Your task to perform on an android device: Empty the shopping cart on walmart. Add "macbook pro 13 inch" to the cart on walmart, then select checkout. Image 0: 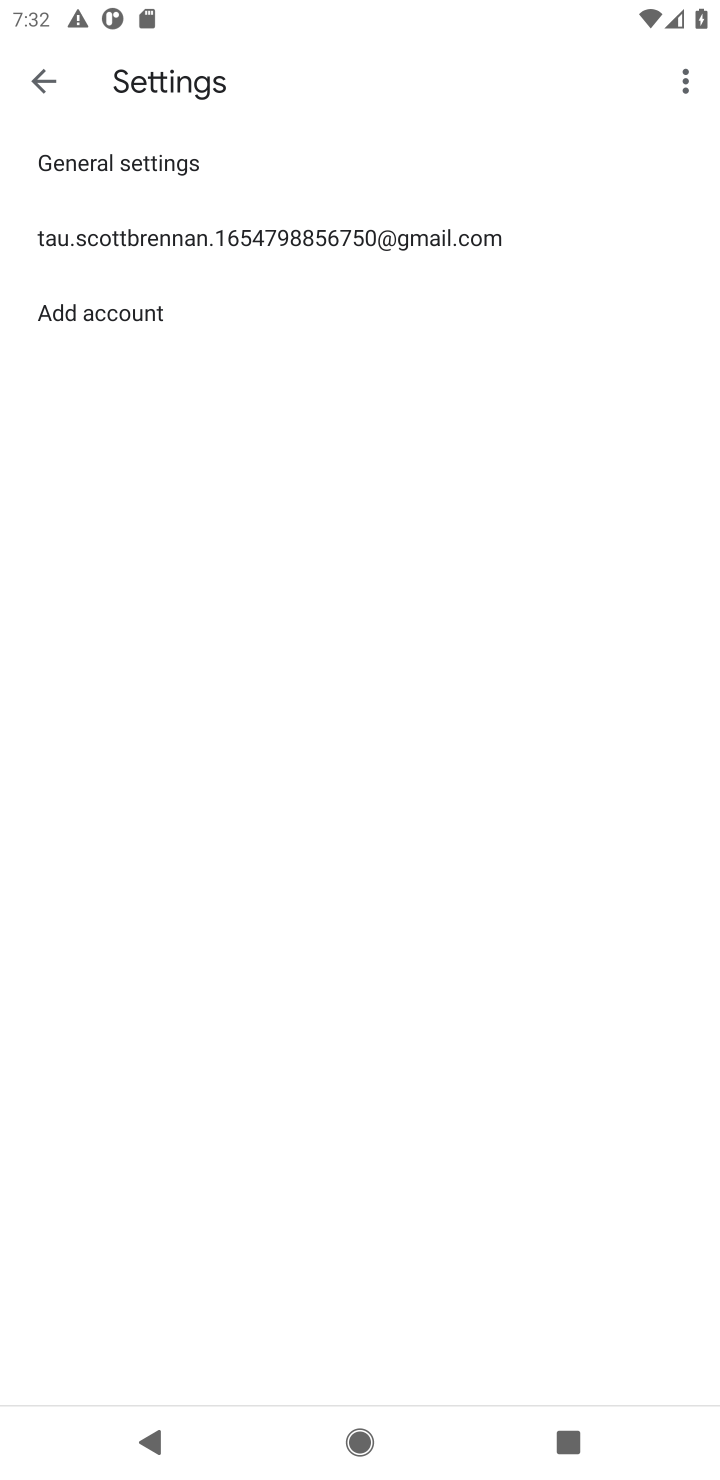
Step 0: press home button
Your task to perform on an android device: Empty the shopping cart on walmart. Add "macbook pro 13 inch" to the cart on walmart, then select checkout. Image 1: 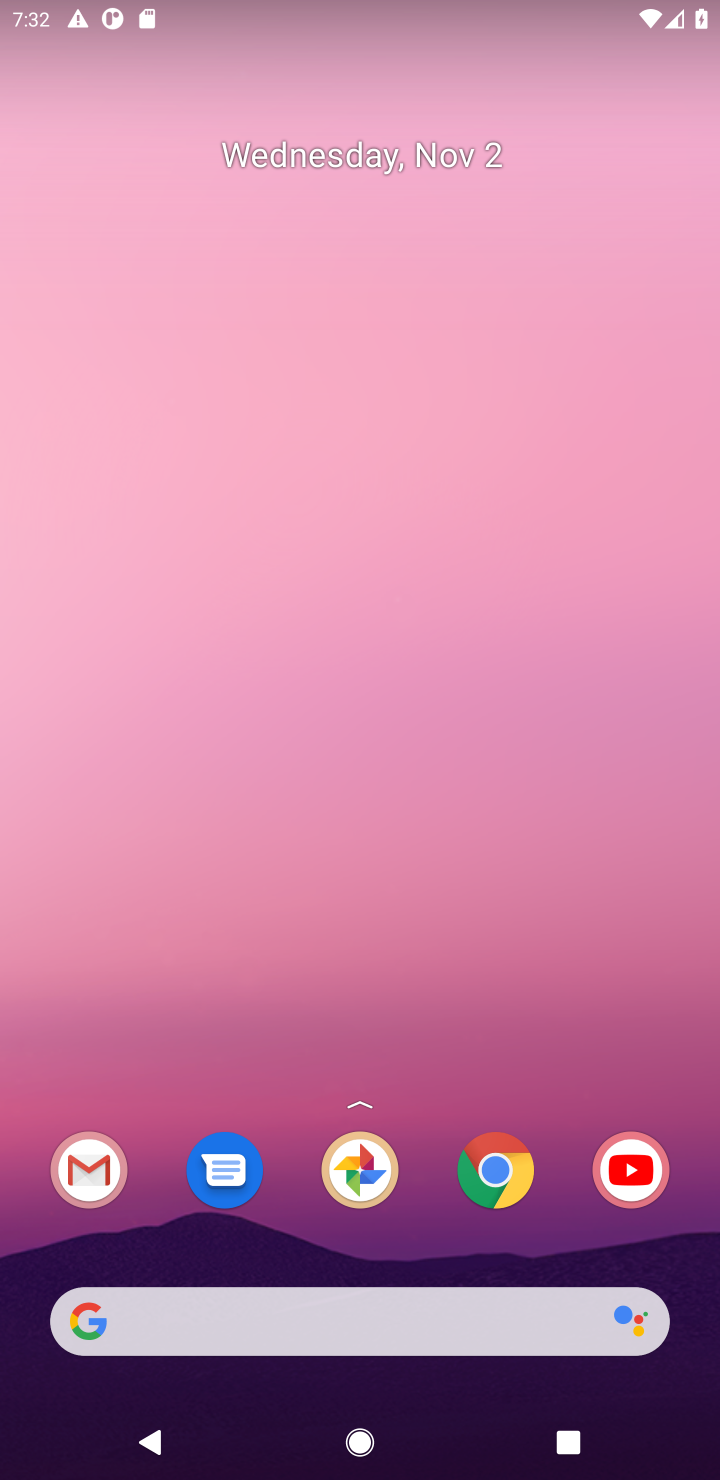
Step 1: click (505, 1193)
Your task to perform on an android device: Empty the shopping cart on walmart. Add "macbook pro 13 inch" to the cart on walmart, then select checkout. Image 2: 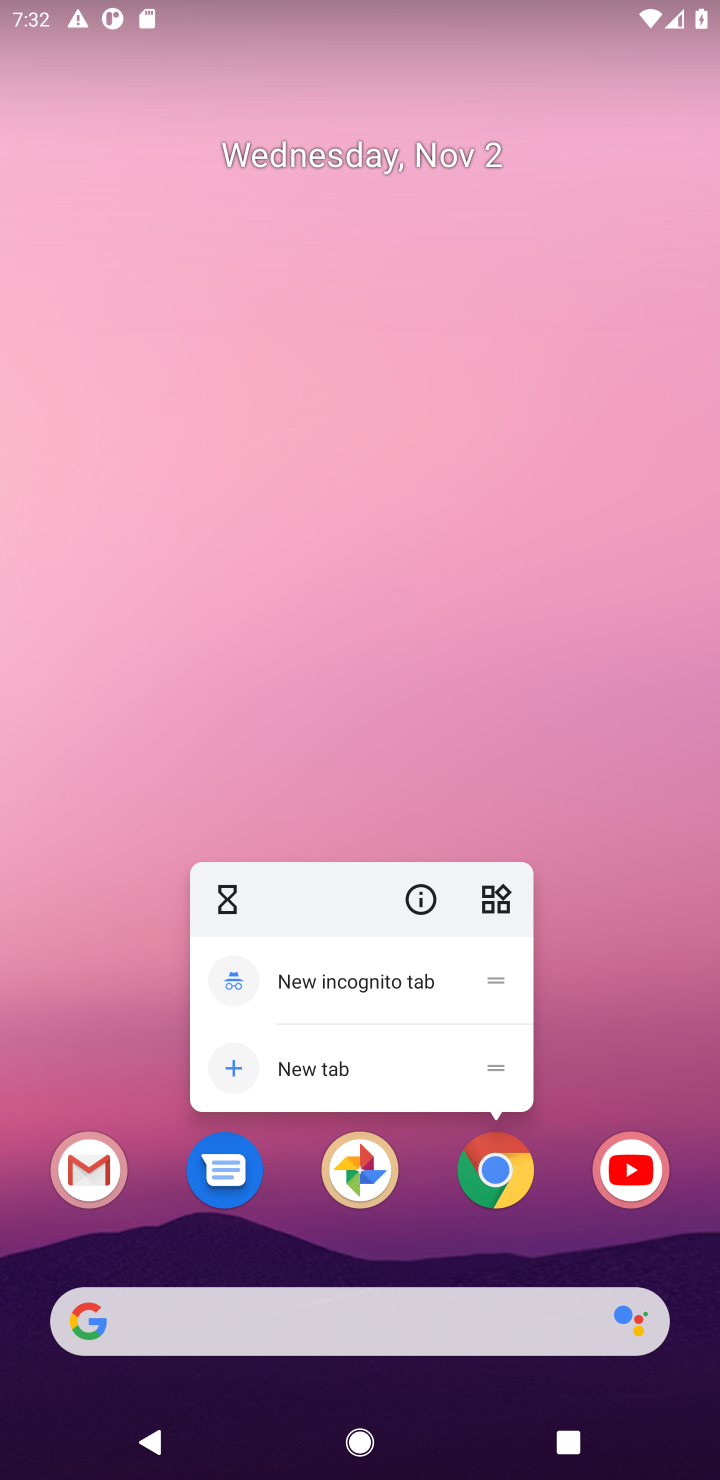
Step 2: click (521, 1181)
Your task to perform on an android device: Empty the shopping cart on walmart. Add "macbook pro 13 inch" to the cart on walmart, then select checkout. Image 3: 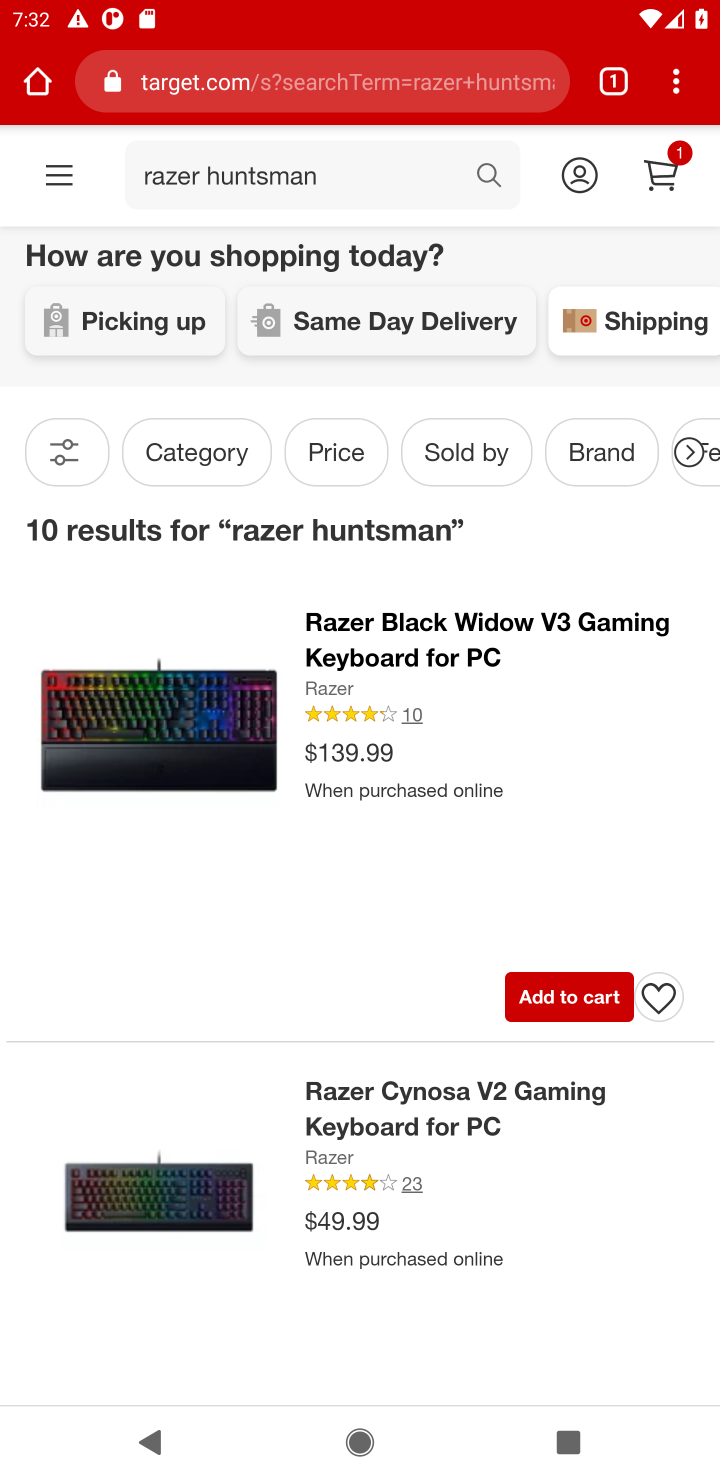
Step 3: click (317, 124)
Your task to perform on an android device: Empty the shopping cart on walmart. Add "macbook pro 13 inch" to the cart on walmart, then select checkout. Image 4: 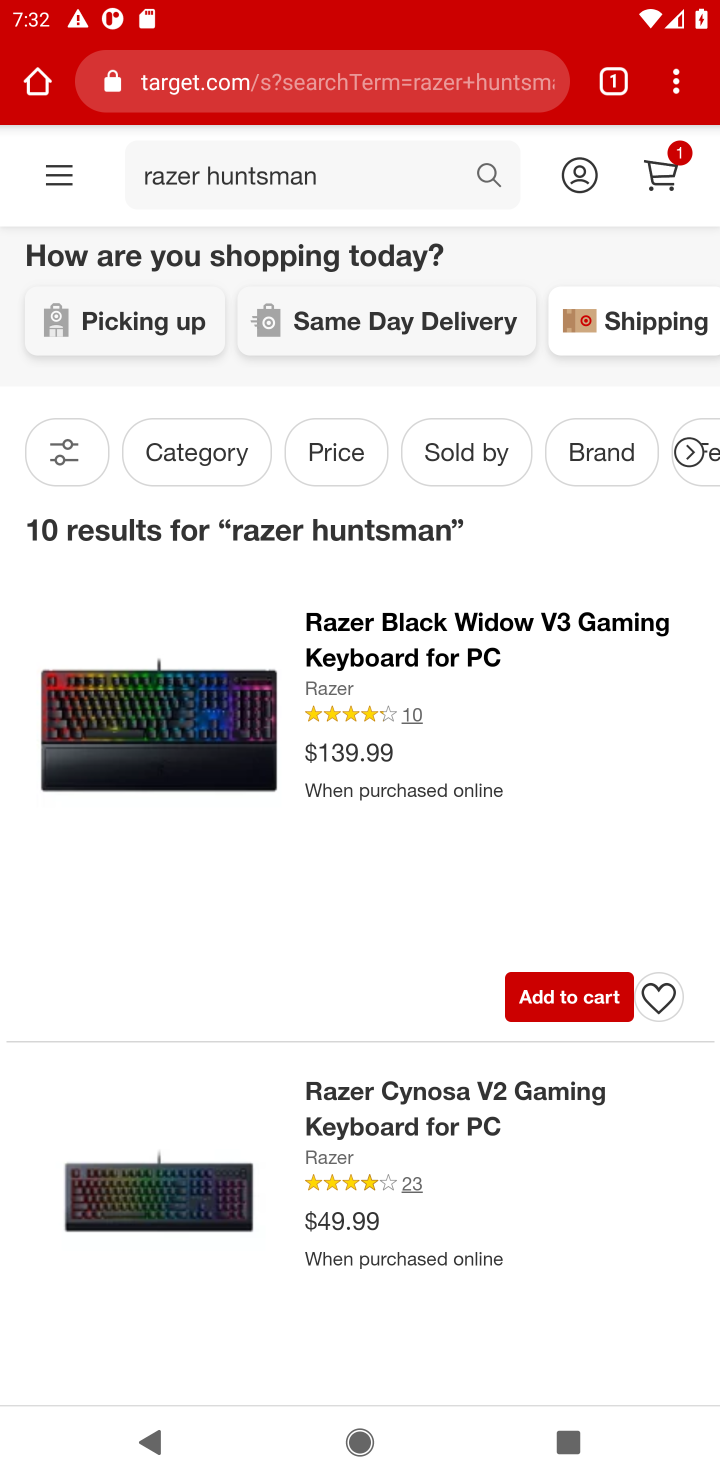
Step 4: click (324, 90)
Your task to perform on an android device: Empty the shopping cart on walmart. Add "macbook pro 13 inch" to the cart on walmart, then select checkout. Image 5: 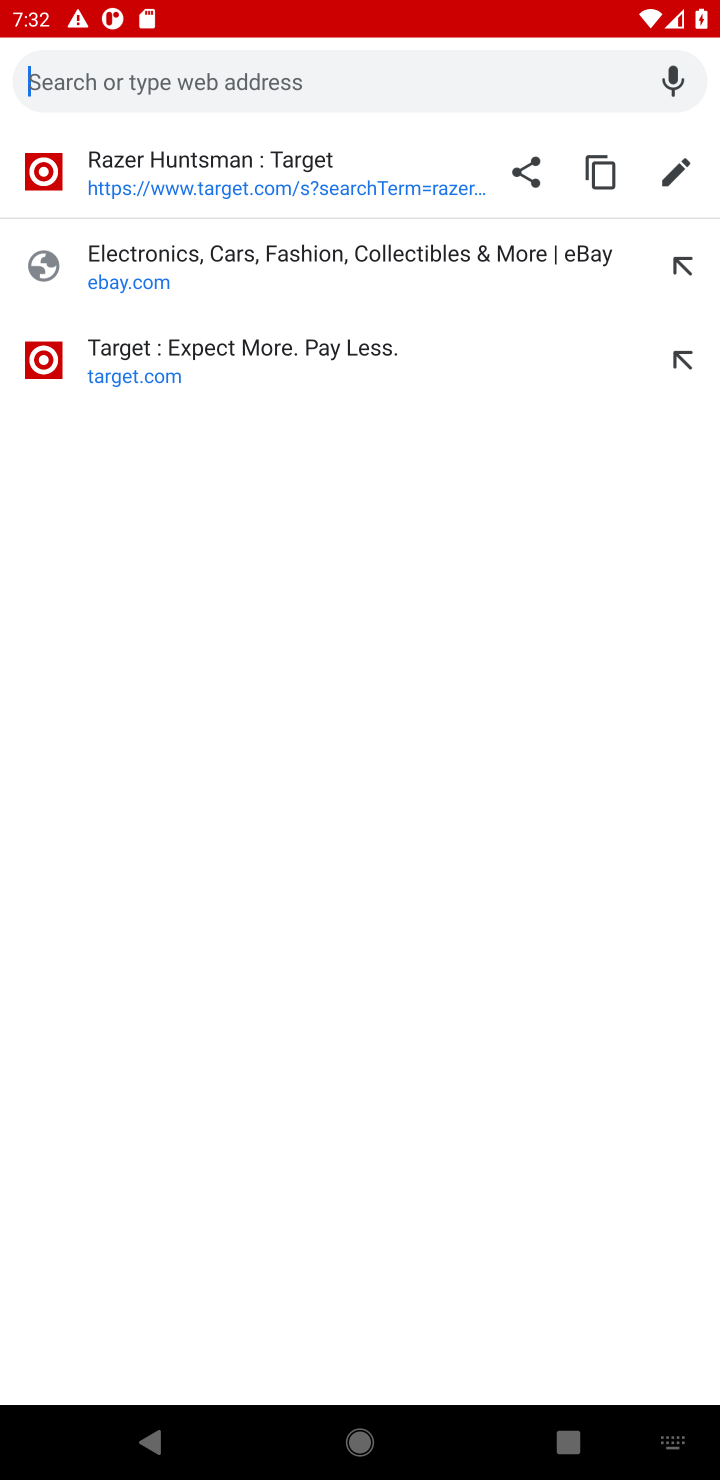
Step 5: type "walmart"
Your task to perform on an android device: Empty the shopping cart on walmart. Add "macbook pro 13 inch" to the cart on walmart, then select checkout. Image 6: 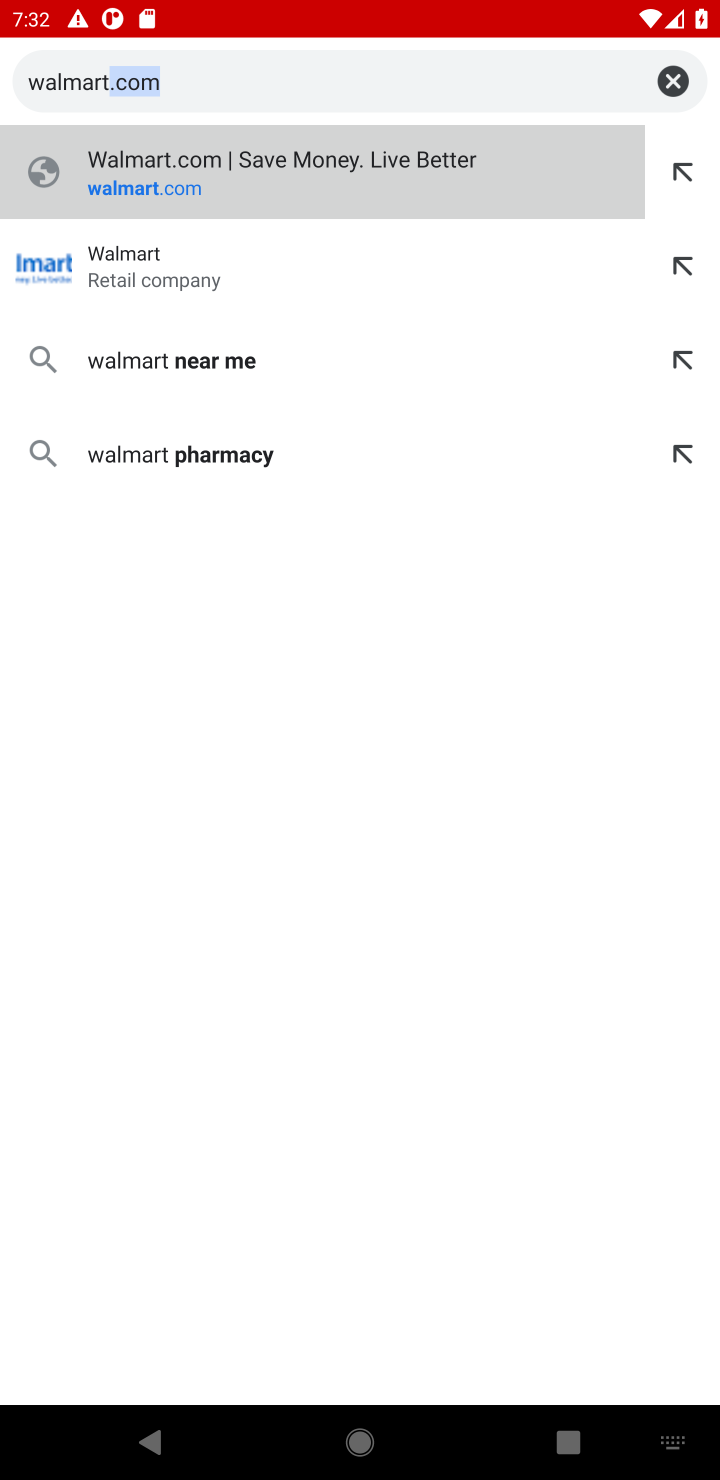
Step 6: type ""
Your task to perform on an android device: Empty the shopping cart on walmart. Add "macbook pro 13 inch" to the cart on walmart, then select checkout. Image 7: 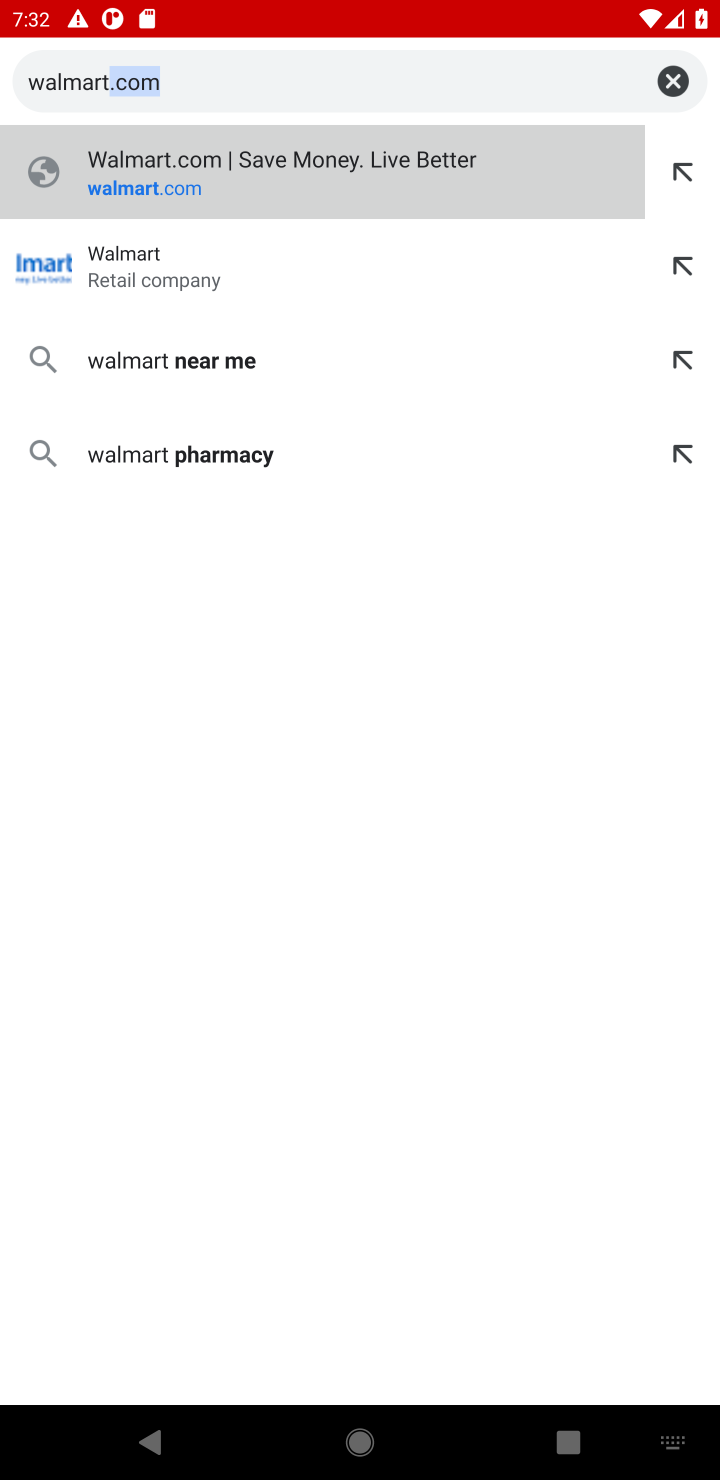
Step 7: press enter
Your task to perform on an android device: Empty the shopping cart on walmart. Add "macbook pro 13 inch" to the cart on walmart, then select checkout. Image 8: 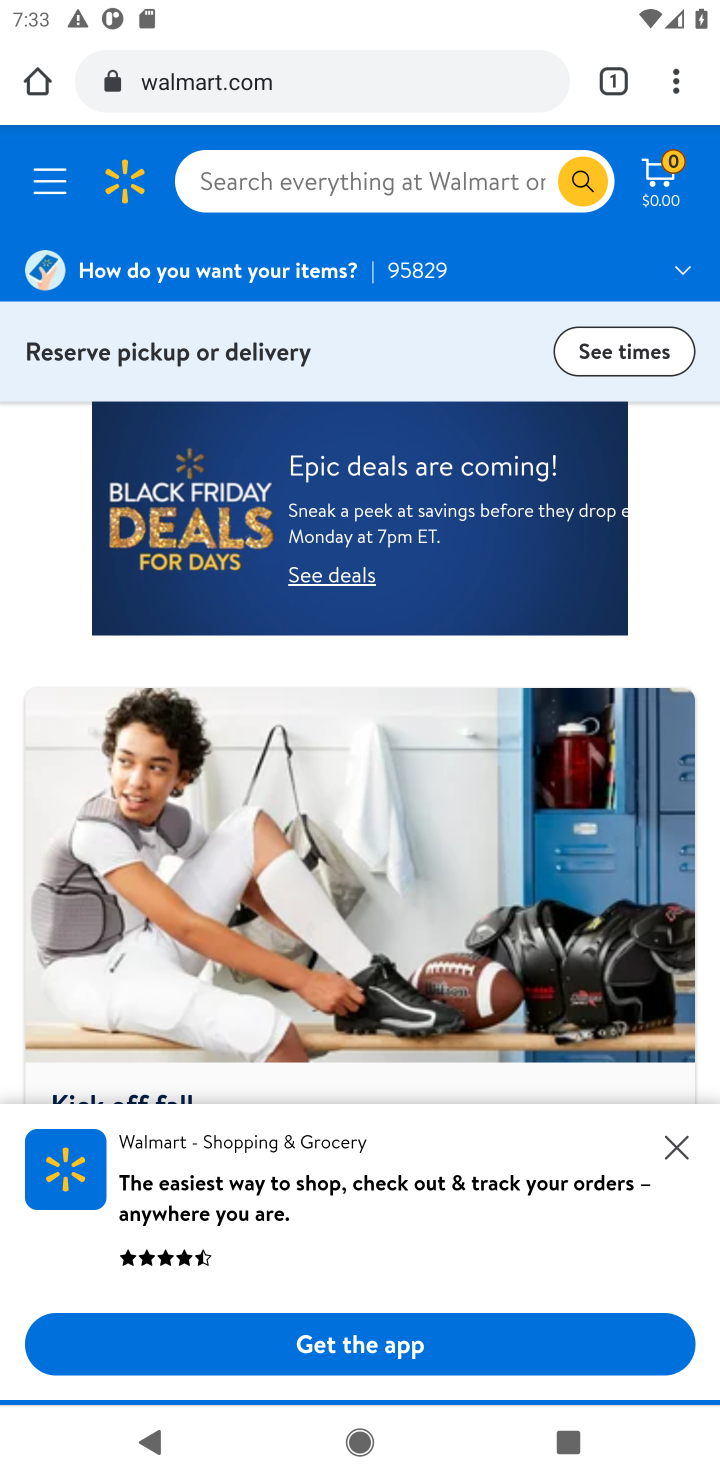
Step 8: click (681, 1143)
Your task to perform on an android device: Empty the shopping cart on walmart. Add "macbook pro 13 inch" to the cart on walmart, then select checkout. Image 9: 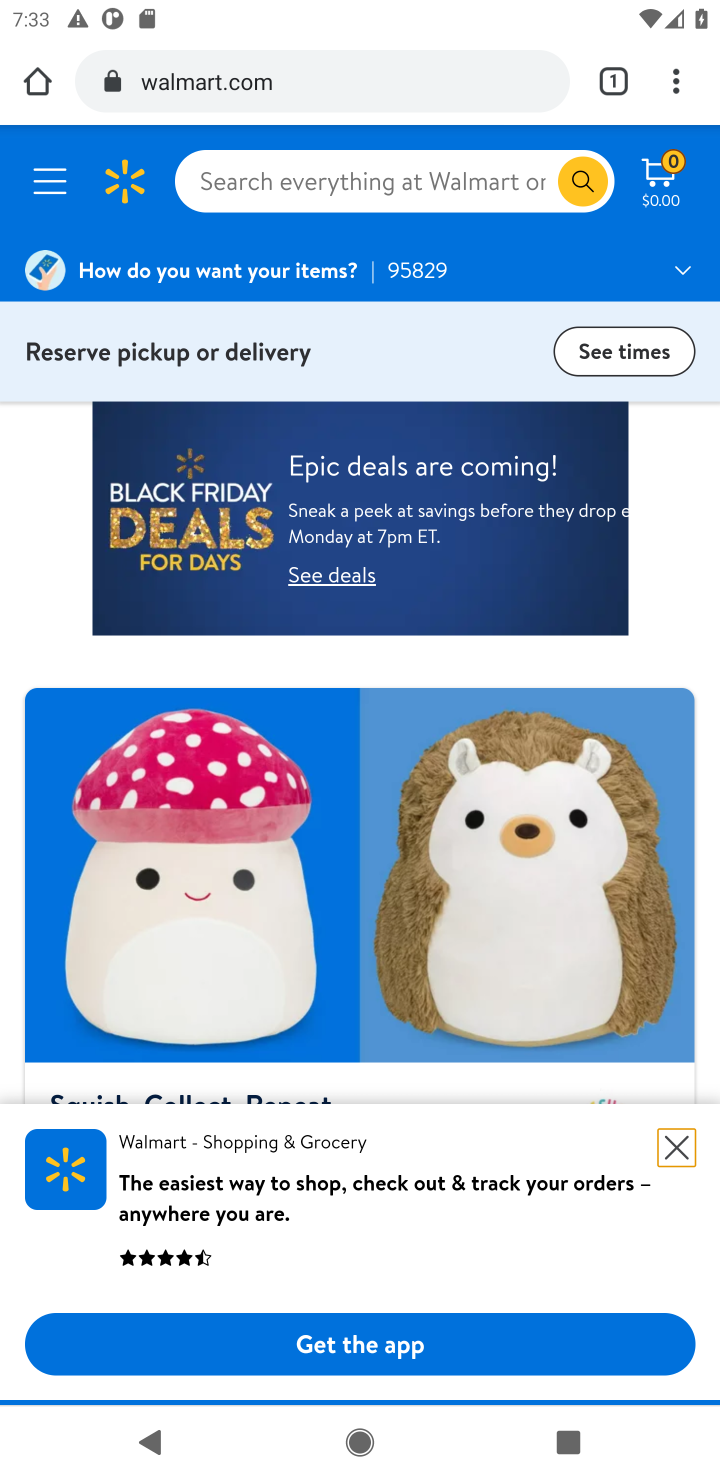
Step 9: click (669, 123)
Your task to perform on an android device: Empty the shopping cart on walmart. Add "macbook pro 13 inch" to the cart on walmart, then select checkout. Image 10: 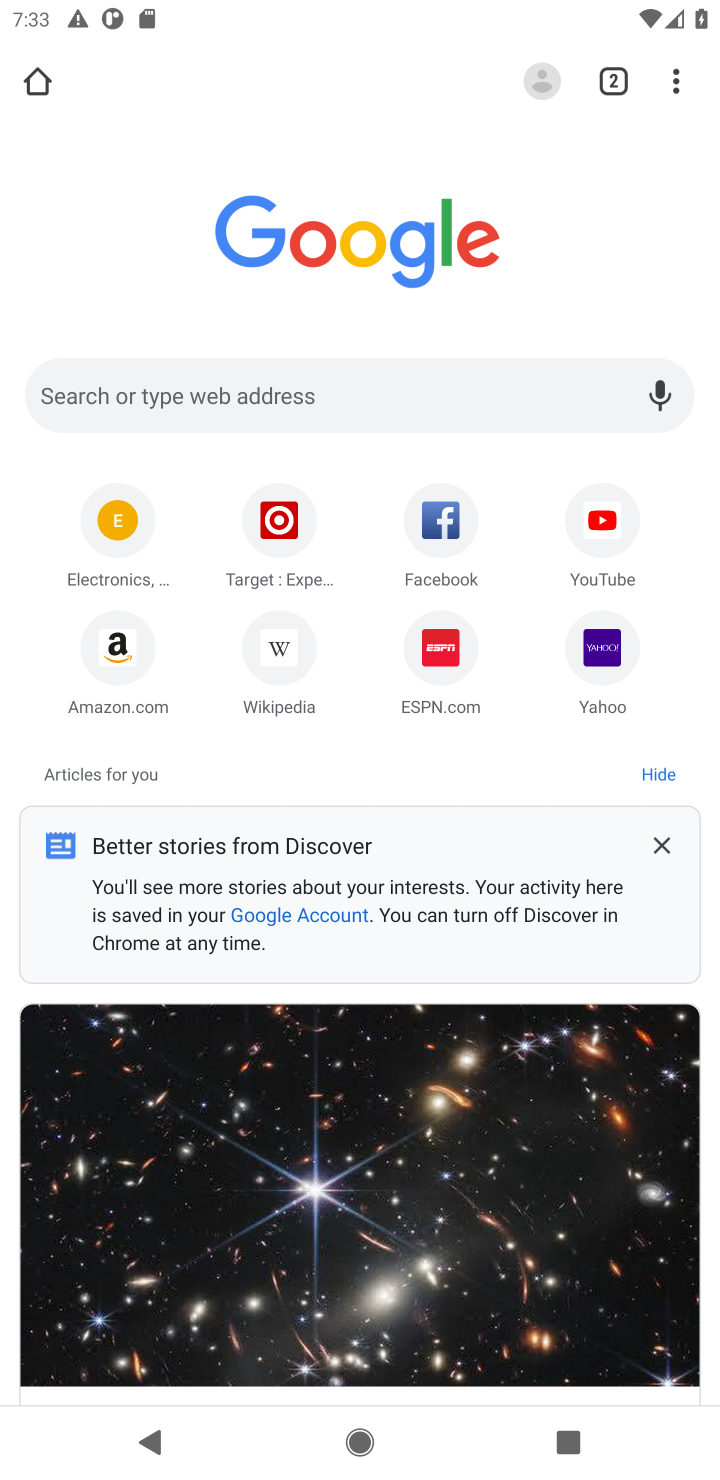
Step 10: press back button
Your task to perform on an android device: Empty the shopping cart on walmart. Add "macbook pro 13 inch" to the cart on walmart, then select checkout. Image 11: 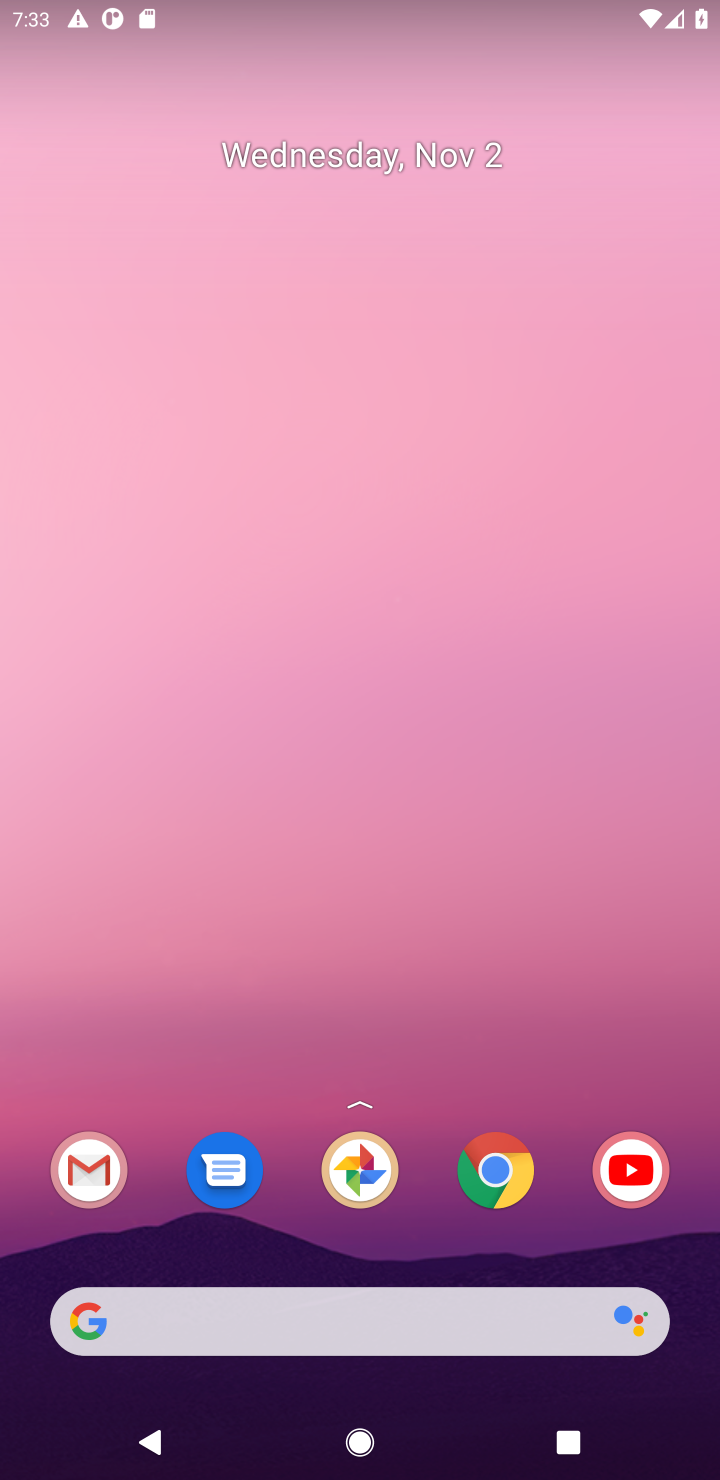
Step 11: click (502, 1192)
Your task to perform on an android device: Empty the shopping cart on walmart. Add "macbook pro 13 inch" to the cart on walmart, then select checkout. Image 12: 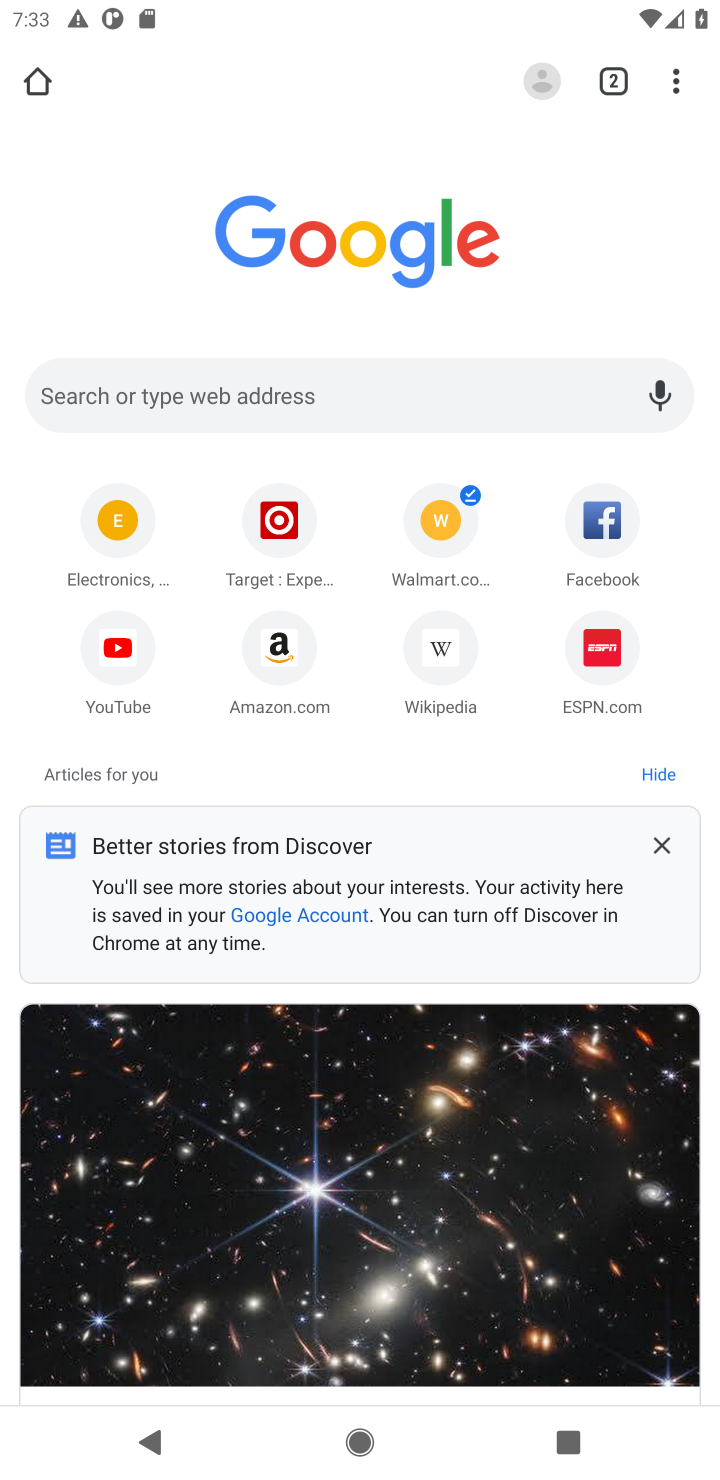
Step 12: click (228, 393)
Your task to perform on an android device: Empty the shopping cart on walmart. Add "macbook pro 13 inch" to the cart on walmart, then select checkout. Image 13: 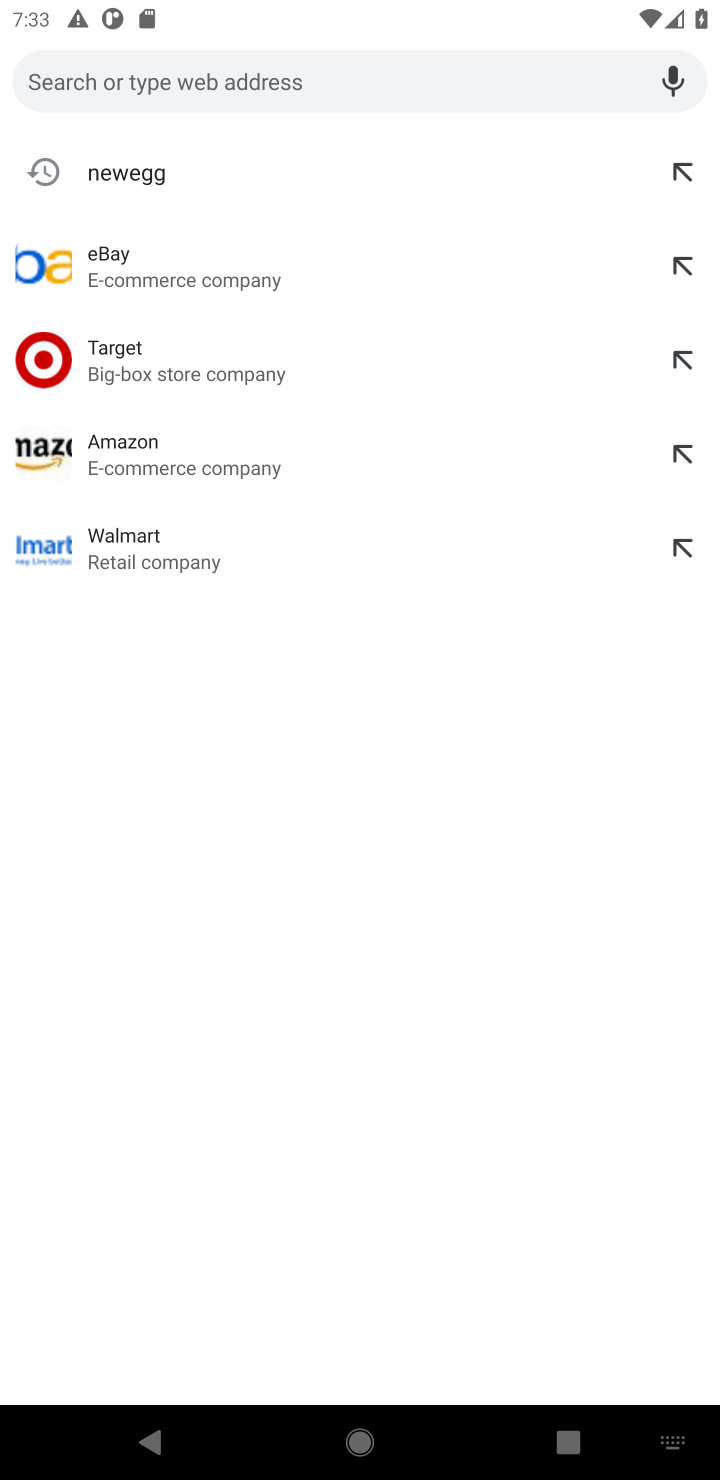
Step 13: type "walmart"
Your task to perform on an android device: Empty the shopping cart on walmart. Add "macbook pro 13 inch" to the cart on walmart, then select checkout. Image 14: 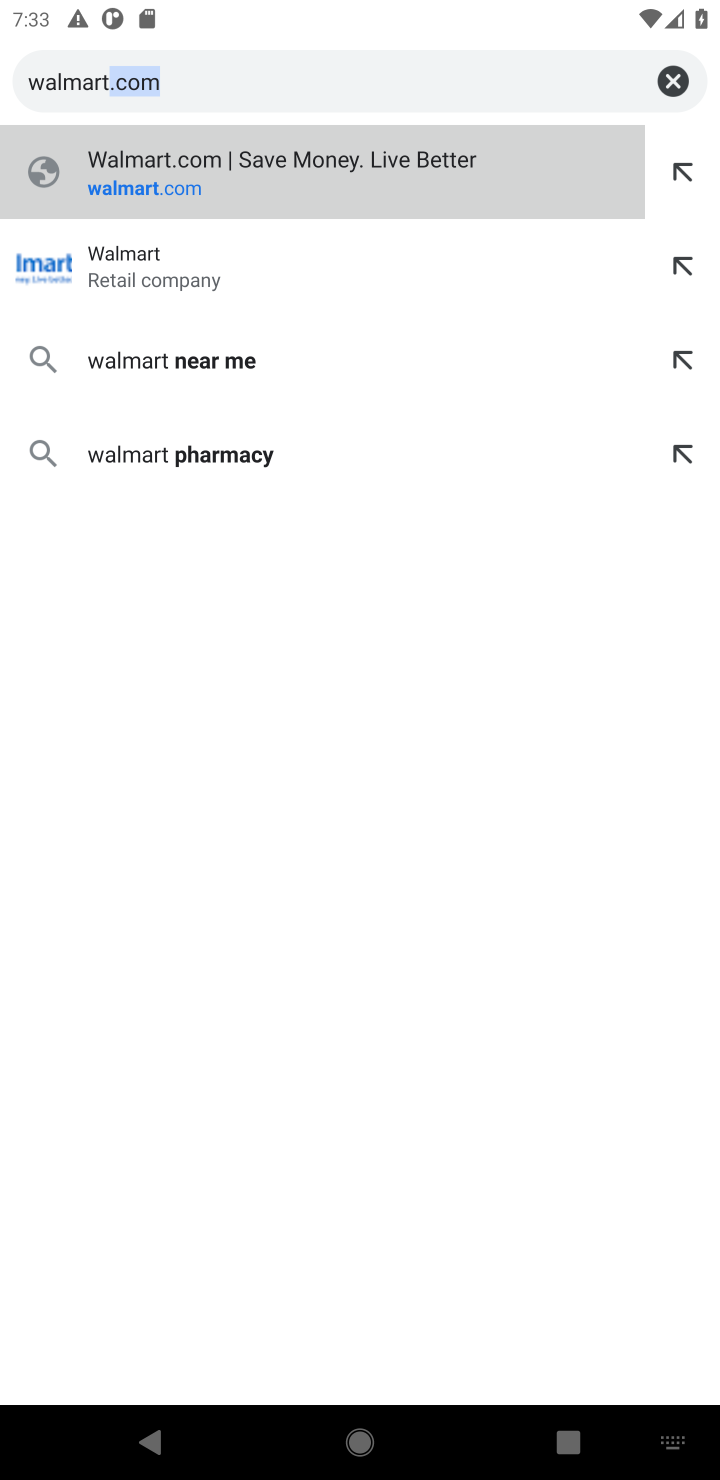
Step 14: press enter
Your task to perform on an android device: Empty the shopping cart on walmart. Add "macbook pro 13 inch" to the cart on walmart, then select checkout. Image 15: 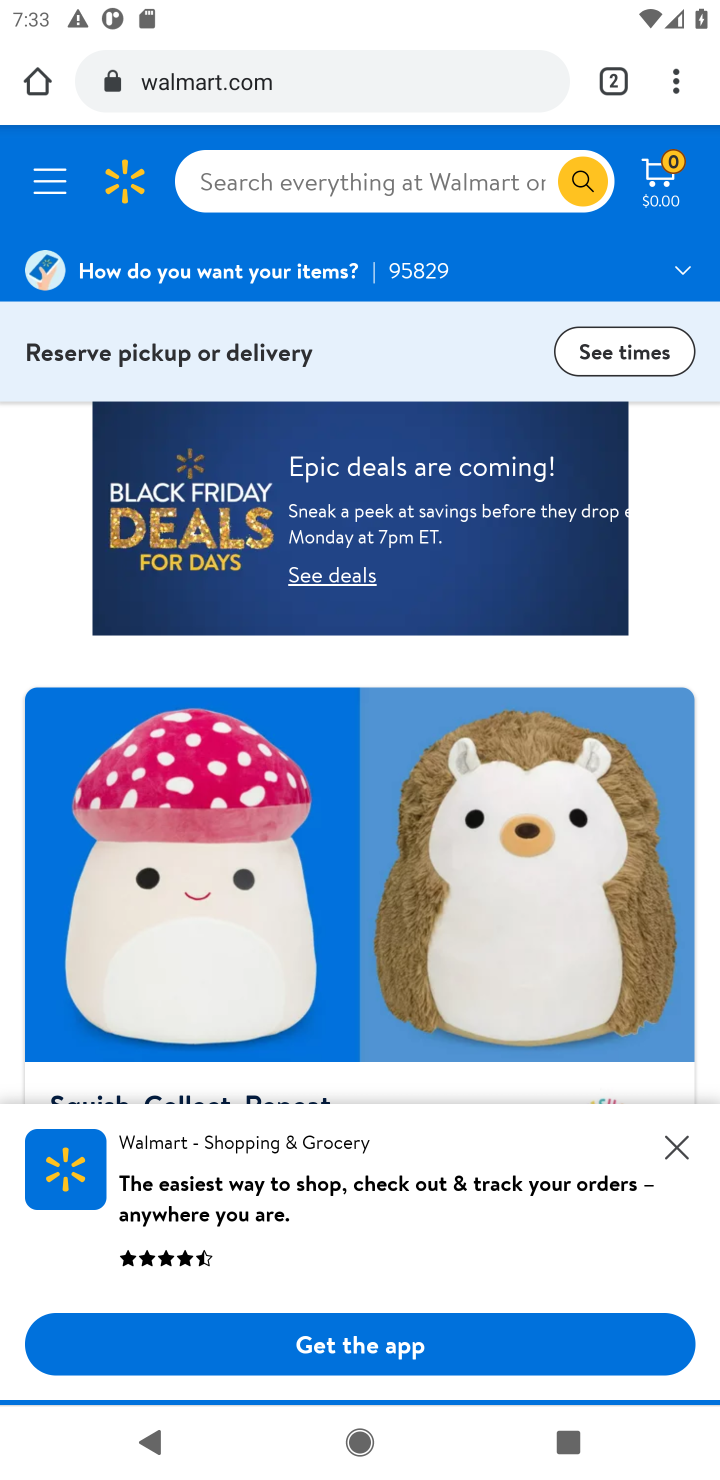
Step 15: click (663, 168)
Your task to perform on an android device: Empty the shopping cart on walmart. Add "macbook pro 13 inch" to the cart on walmart, then select checkout. Image 16: 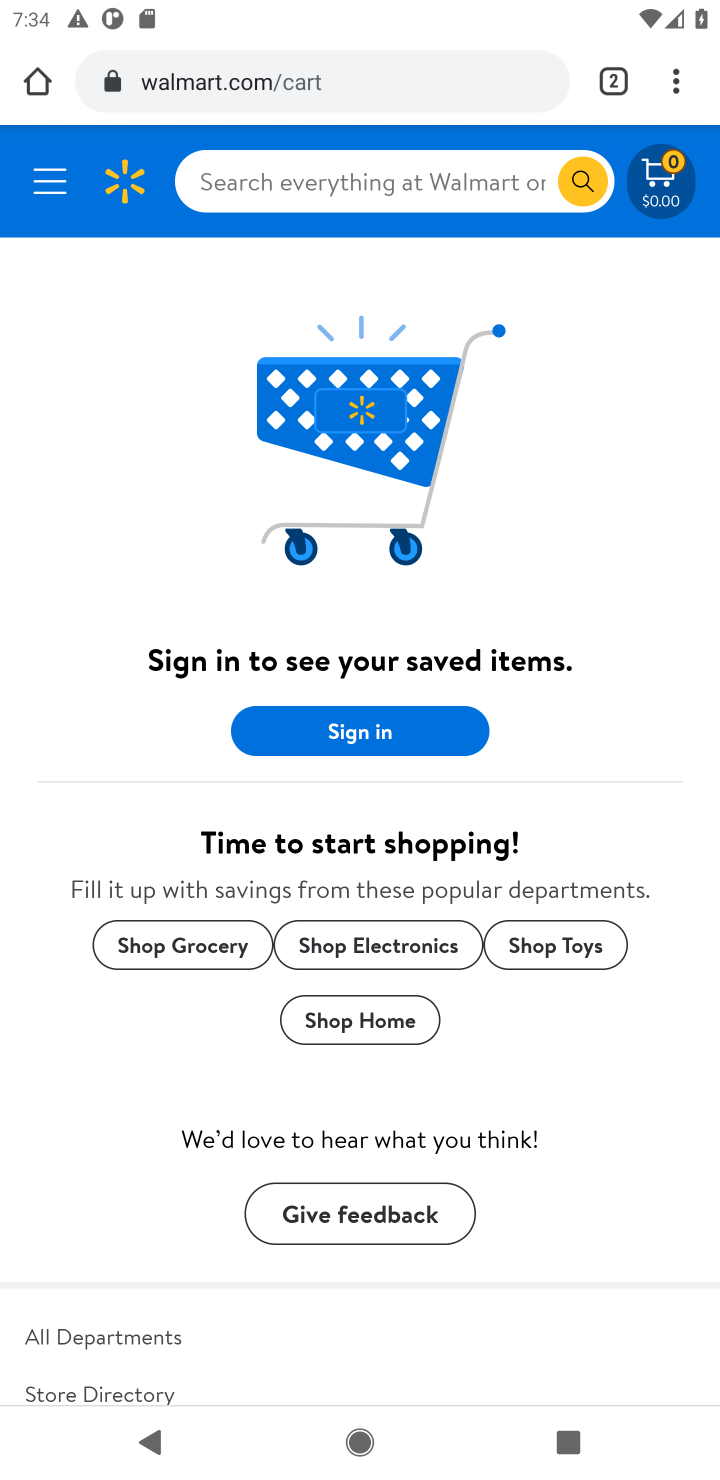
Step 16: click (452, 187)
Your task to perform on an android device: Empty the shopping cart on walmart. Add "macbook pro 13 inch" to the cart on walmart, then select checkout. Image 17: 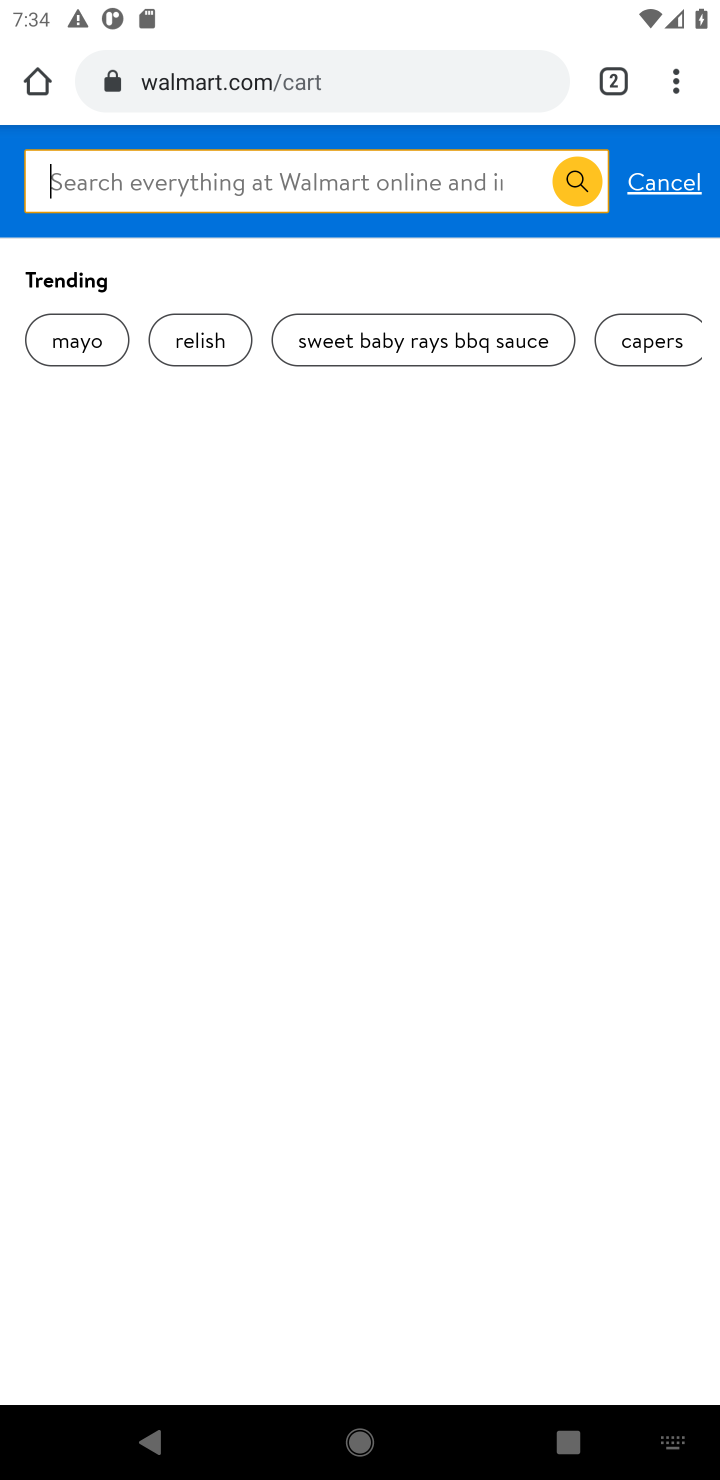
Step 17: type "macbook pro 13 inch"
Your task to perform on an android device: Empty the shopping cart on walmart. Add "macbook pro 13 inch" to the cart on walmart, then select checkout. Image 18: 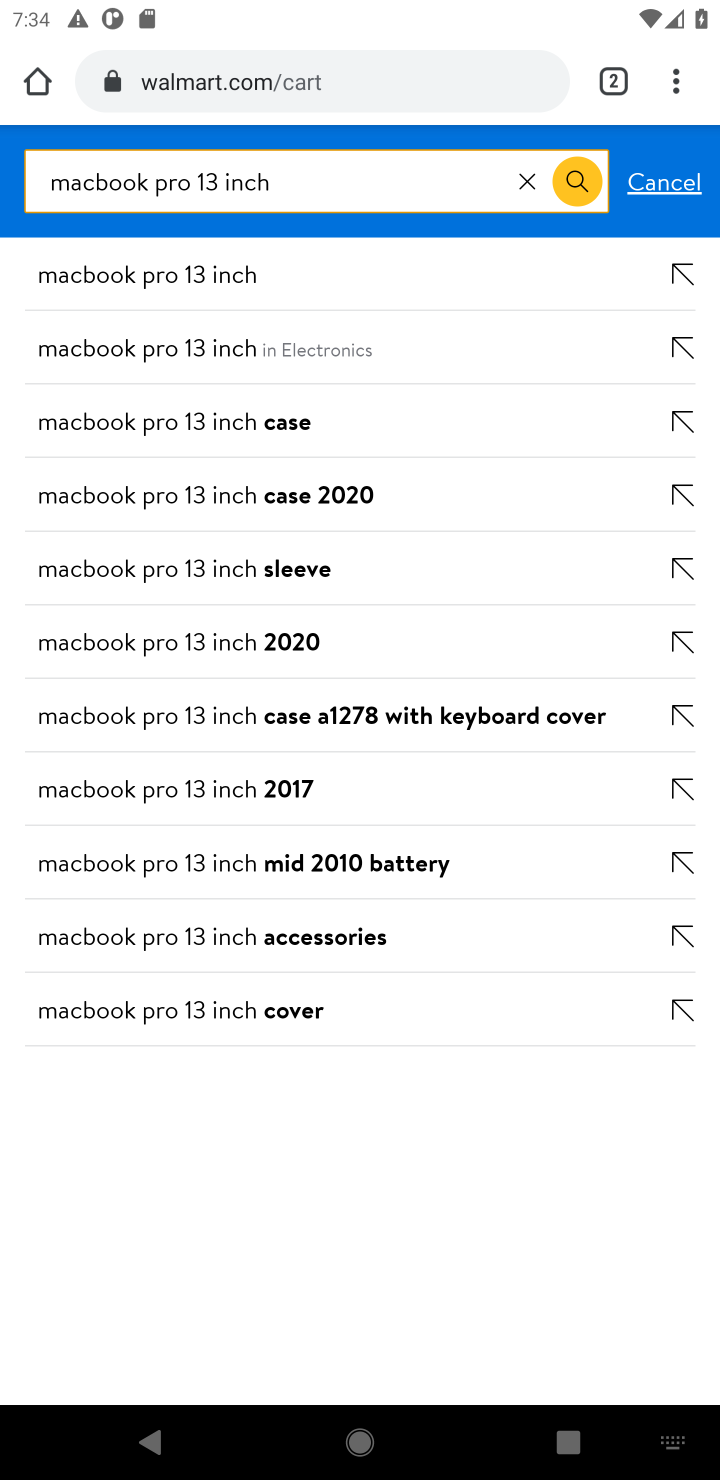
Step 18: press enter
Your task to perform on an android device: Empty the shopping cart on walmart. Add "macbook pro 13 inch" to the cart on walmart, then select checkout. Image 19: 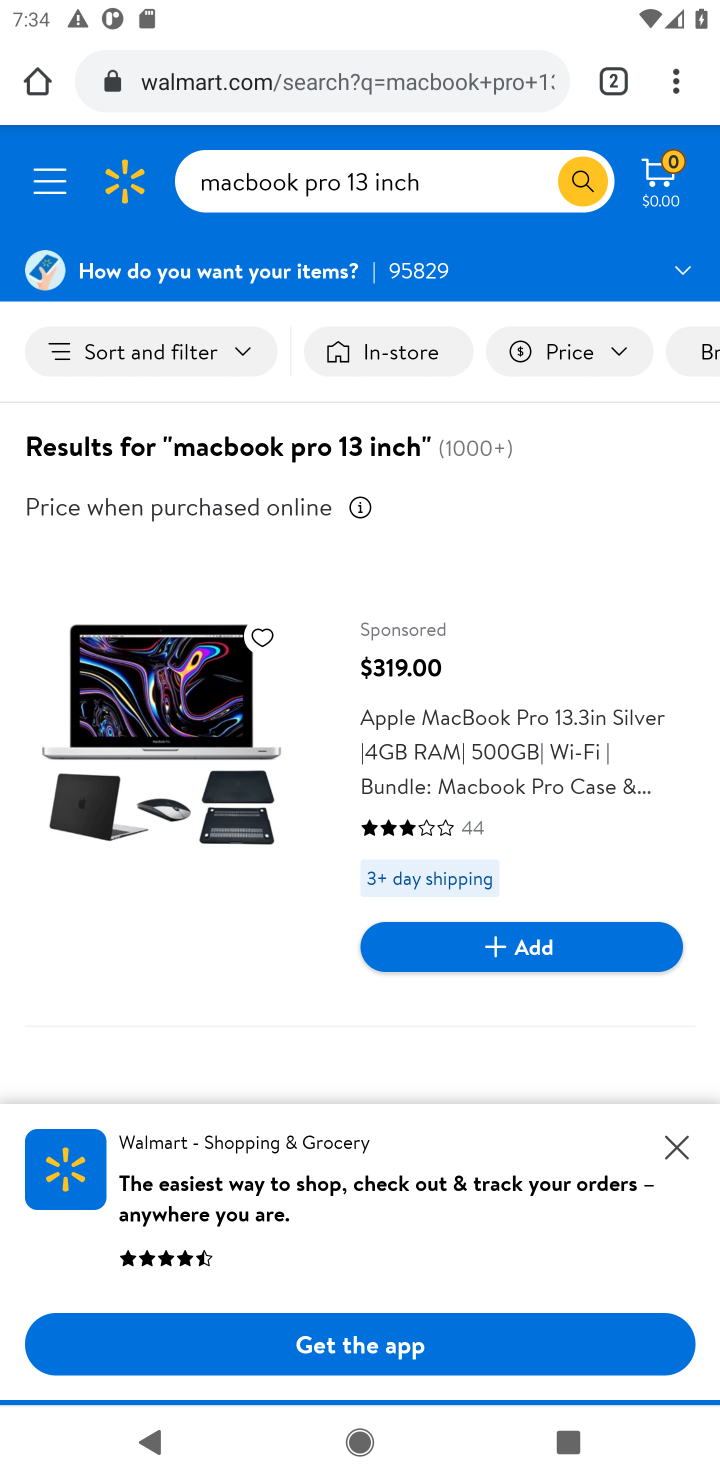
Step 19: click (206, 890)
Your task to perform on an android device: Empty the shopping cart on walmart. Add "macbook pro 13 inch" to the cart on walmart, then select checkout. Image 20: 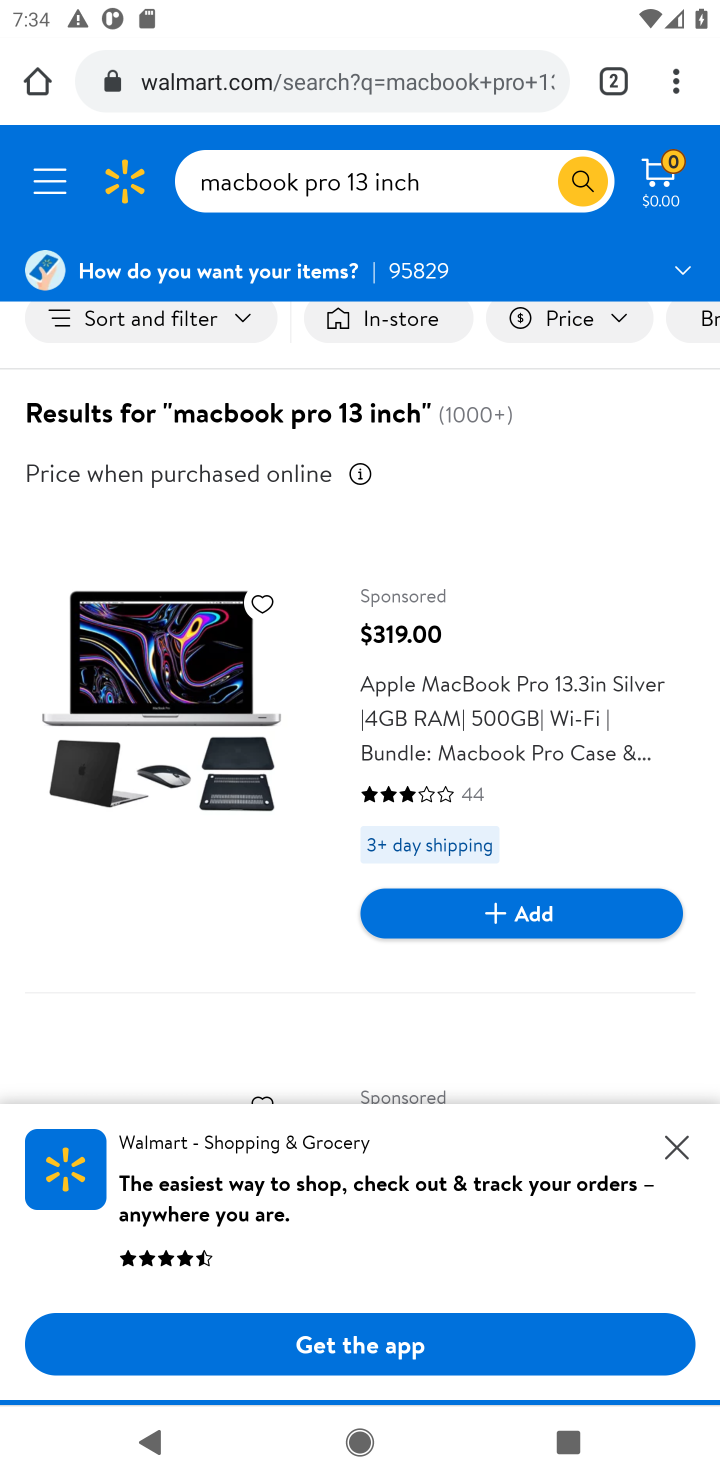
Step 20: click (476, 683)
Your task to perform on an android device: Empty the shopping cart on walmart. Add "macbook pro 13 inch" to the cart on walmart, then select checkout. Image 21: 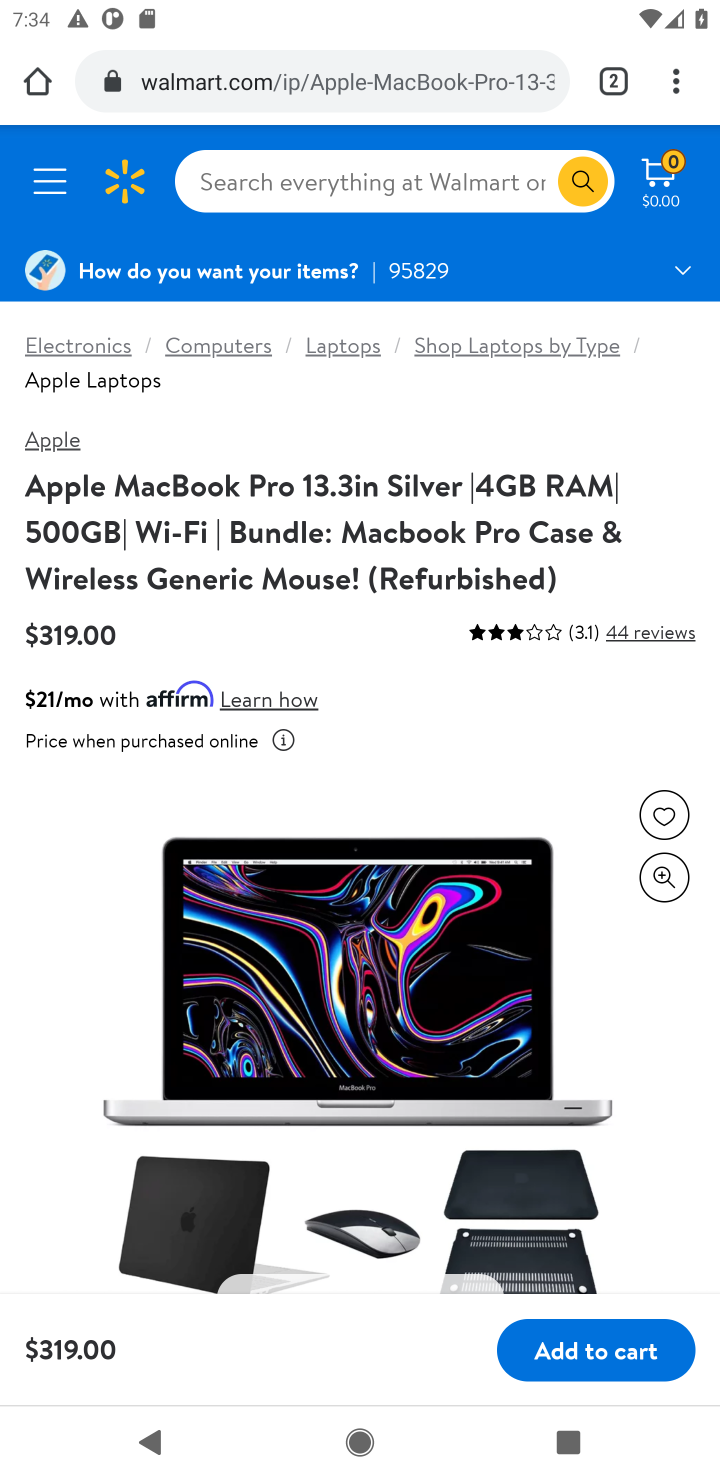
Step 21: drag from (338, 1197) to (286, 683)
Your task to perform on an android device: Empty the shopping cart on walmart. Add "macbook pro 13 inch" to the cart on walmart, then select checkout. Image 22: 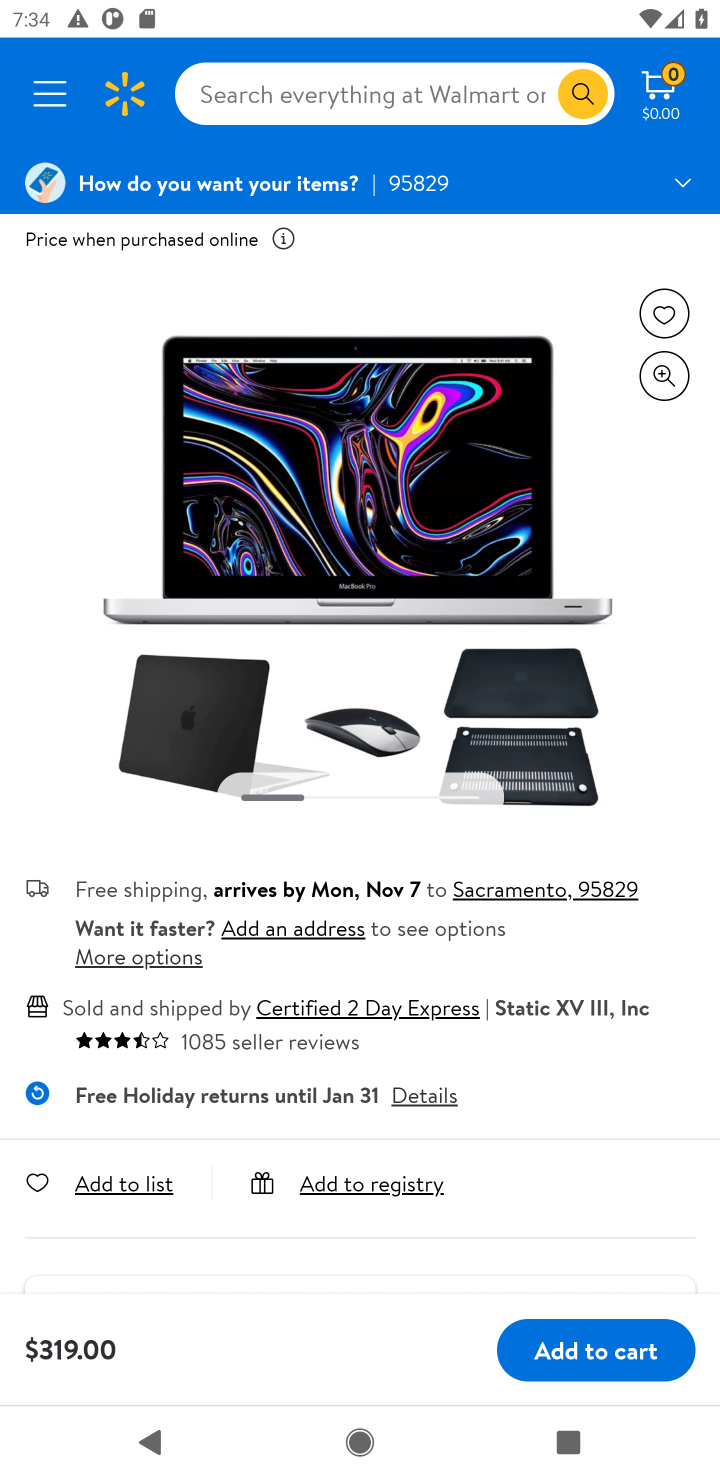
Step 22: click (604, 1353)
Your task to perform on an android device: Empty the shopping cart on walmart. Add "macbook pro 13 inch" to the cart on walmart, then select checkout. Image 23: 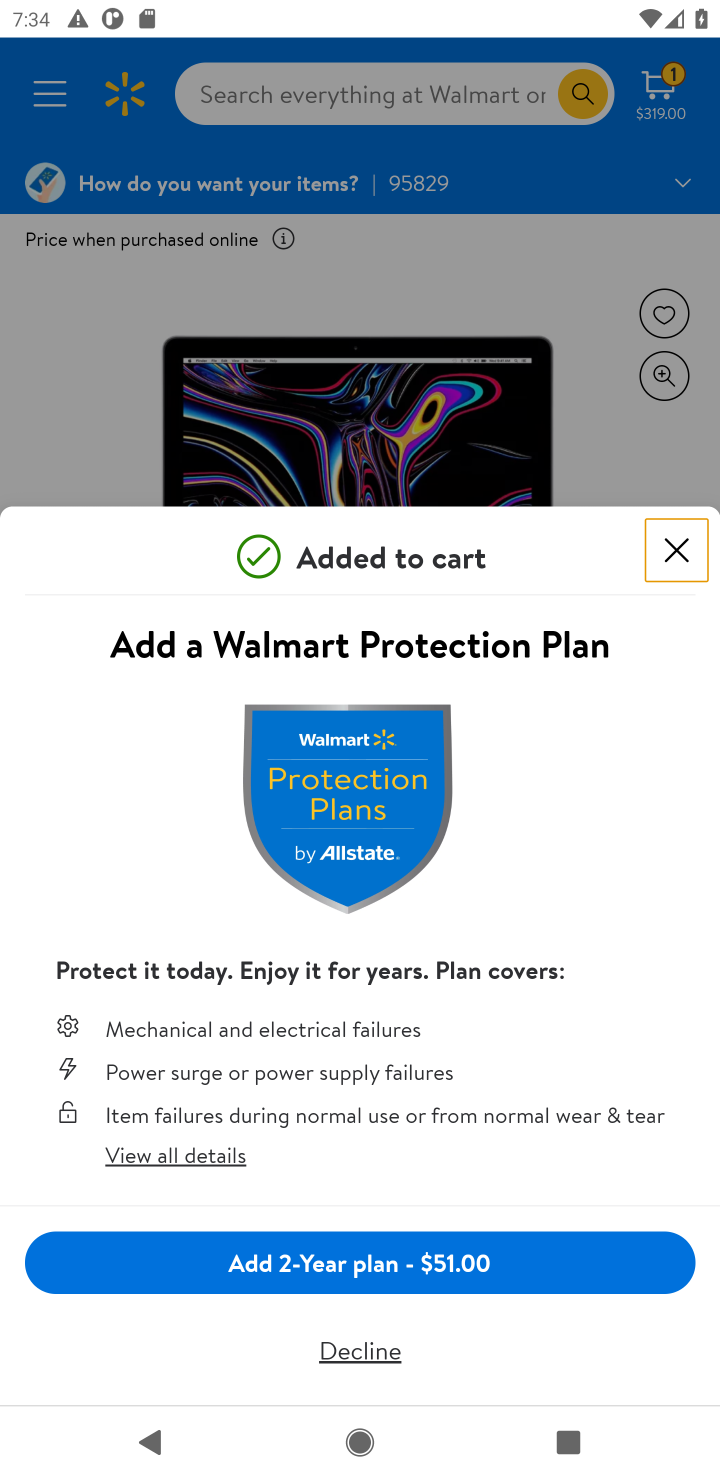
Step 23: click (679, 567)
Your task to perform on an android device: Empty the shopping cart on walmart. Add "macbook pro 13 inch" to the cart on walmart, then select checkout. Image 24: 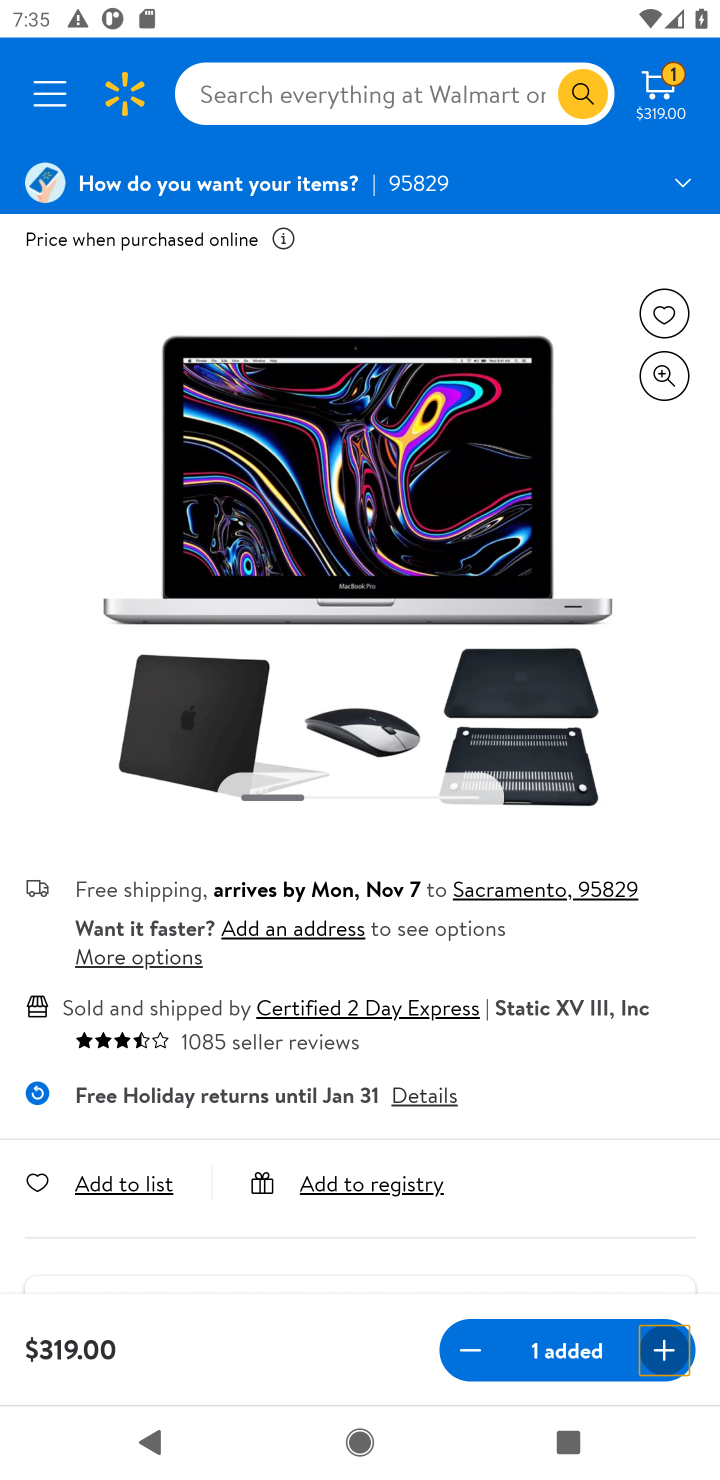
Step 24: click (671, 94)
Your task to perform on an android device: Empty the shopping cart on walmart. Add "macbook pro 13 inch" to the cart on walmart, then select checkout. Image 25: 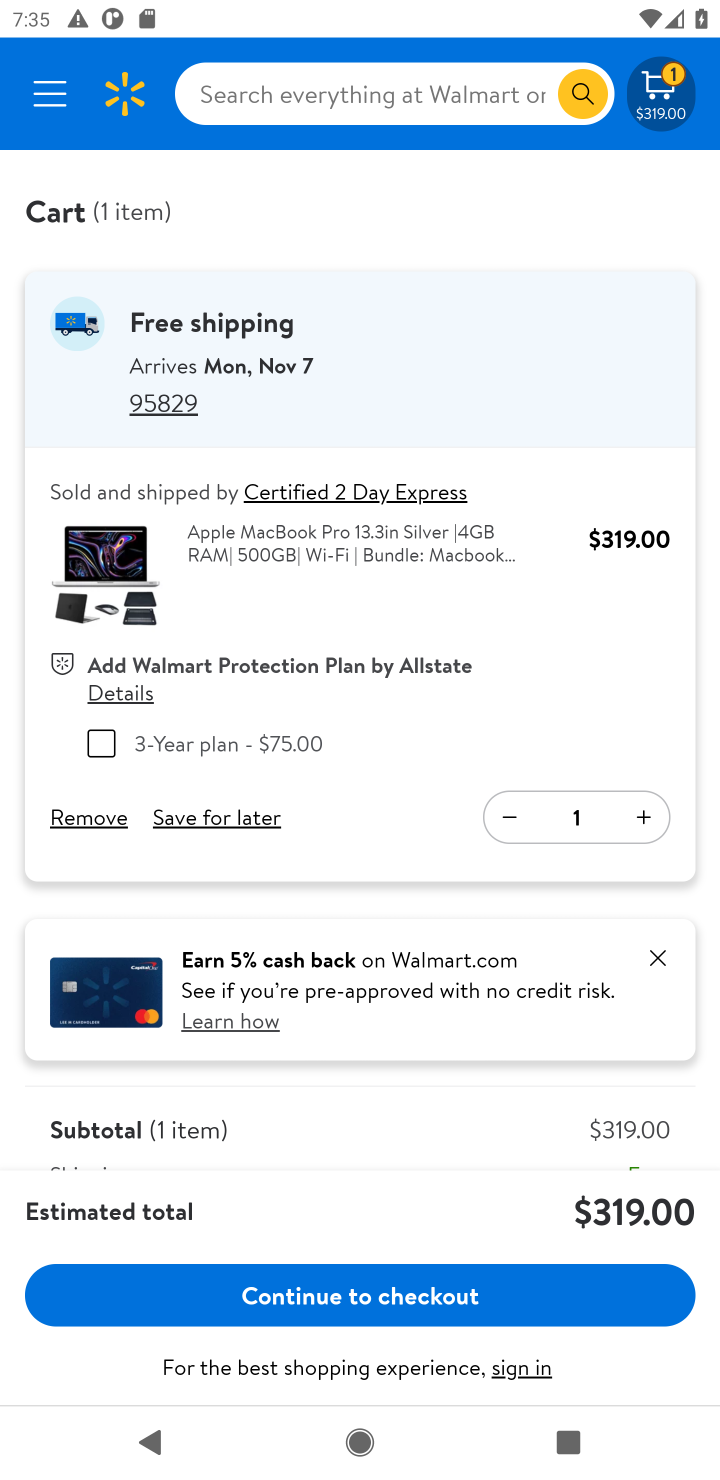
Step 25: click (269, 1301)
Your task to perform on an android device: Empty the shopping cart on walmart. Add "macbook pro 13 inch" to the cart on walmart, then select checkout. Image 26: 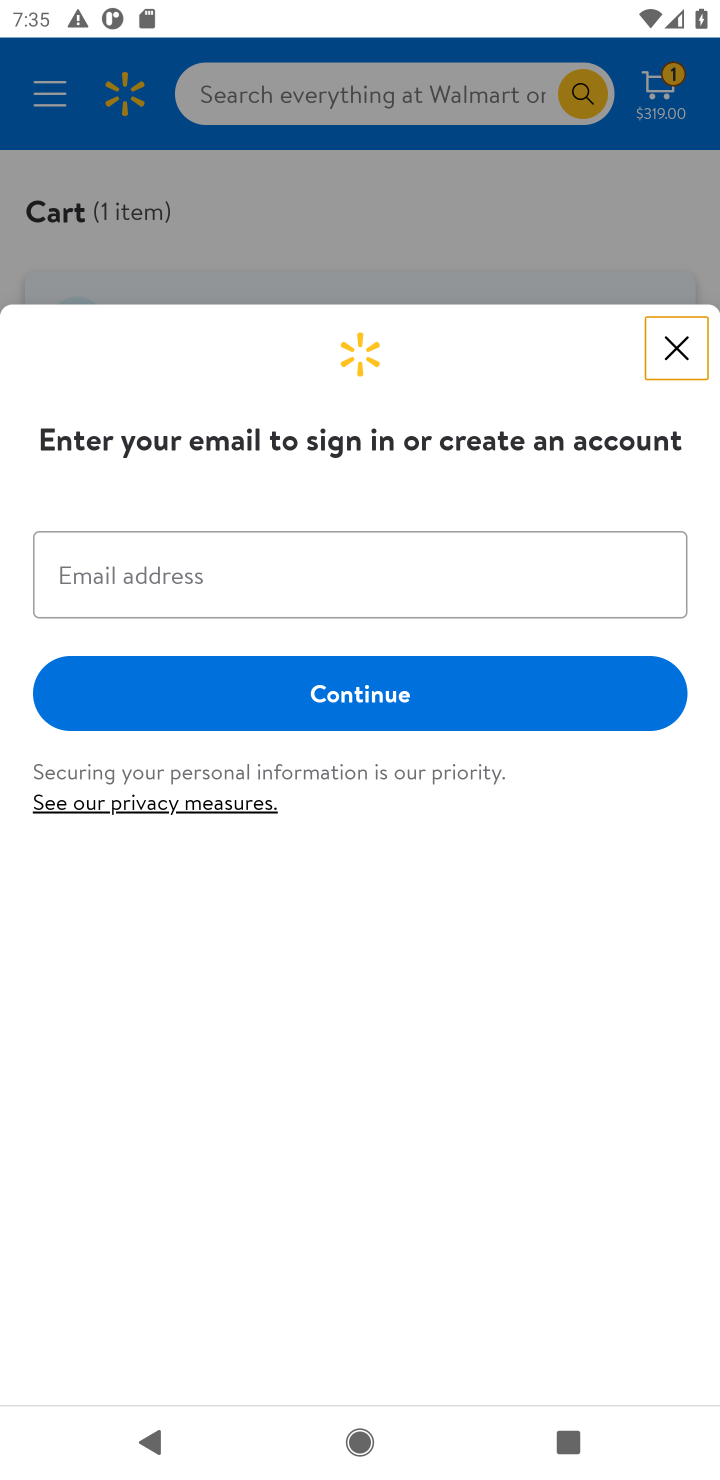
Step 26: click (648, 343)
Your task to perform on an android device: Empty the shopping cart on walmart. Add "macbook pro 13 inch" to the cart on walmart, then select checkout. Image 27: 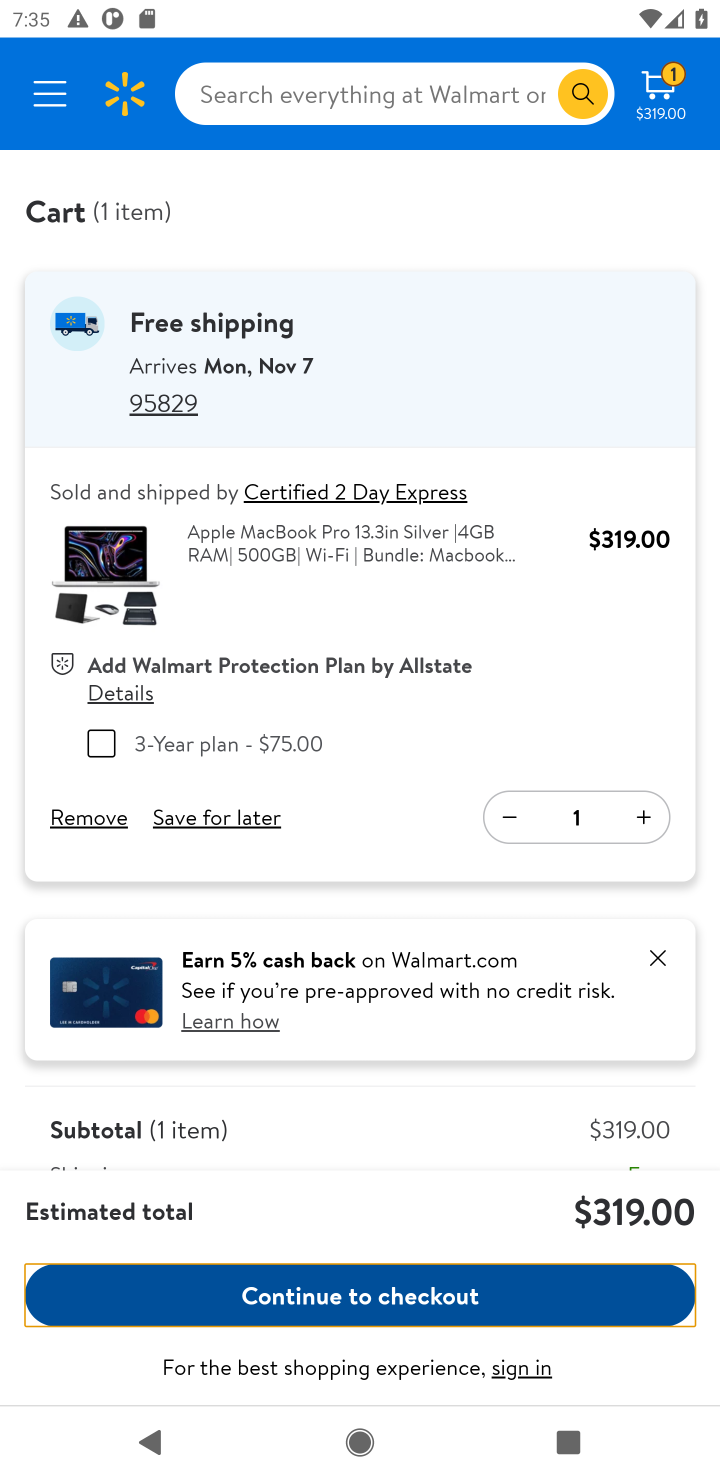
Step 27: task complete